Your task to perform on an android device: toggle priority inbox in the gmail app Image 0: 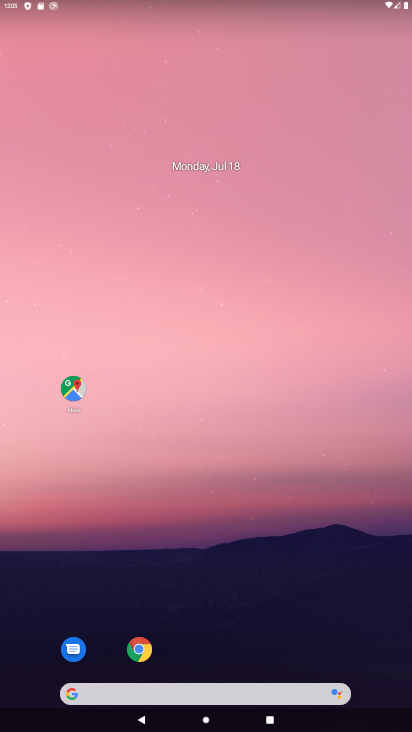
Step 0: drag from (196, 453) to (196, 169)
Your task to perform on an android device: toggle priority inbox in the gmail app Image 1: 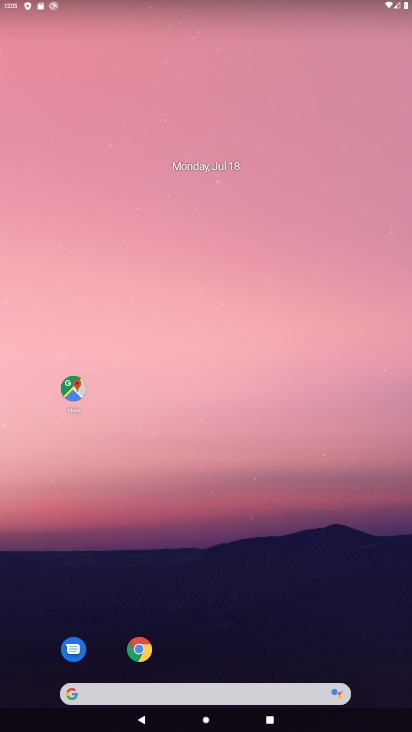
Step 1: drag from (191, 593) to (170, 26)
Your task to perform on an android device: toggle priority inbox in the gmail app Image 2: 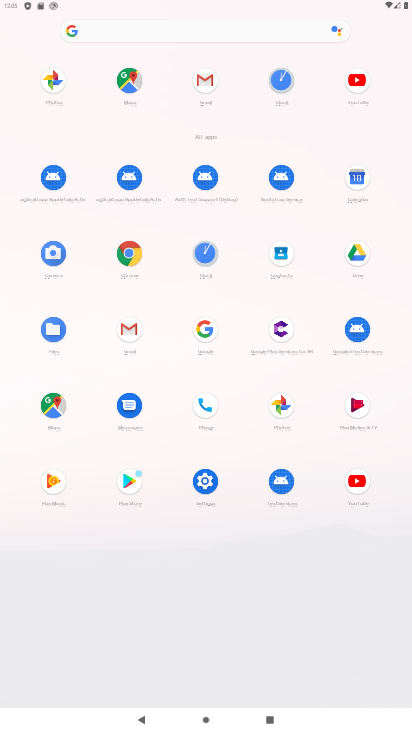
Step 2: click (204, 81)
Your task to perform on an android device: toggle priority inbox in the gmail app Image 3: 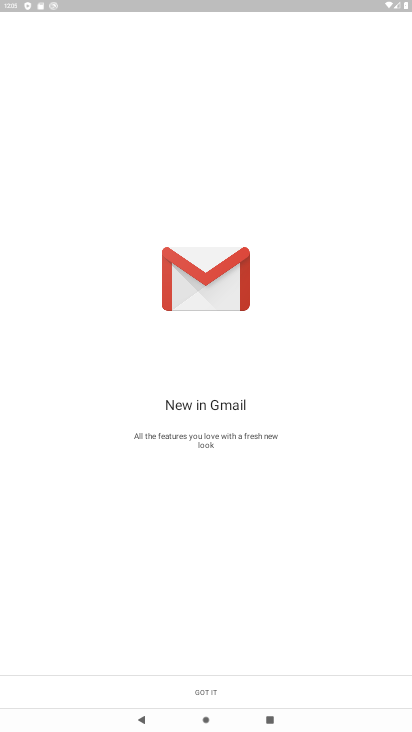
Step 3: click (204, 691)
Your task to perform on an android device: toggle priority inbox in the gmail app Image 4: 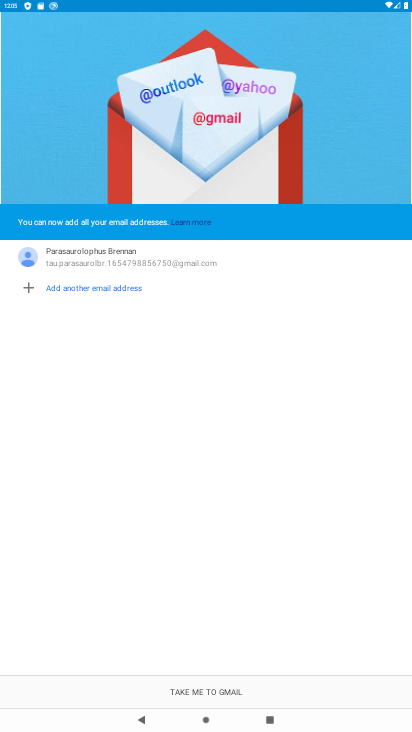
Step 4: click (204, 691)
Your task to perform on an android device: toggle priority inbox in the gmail app Image 5: 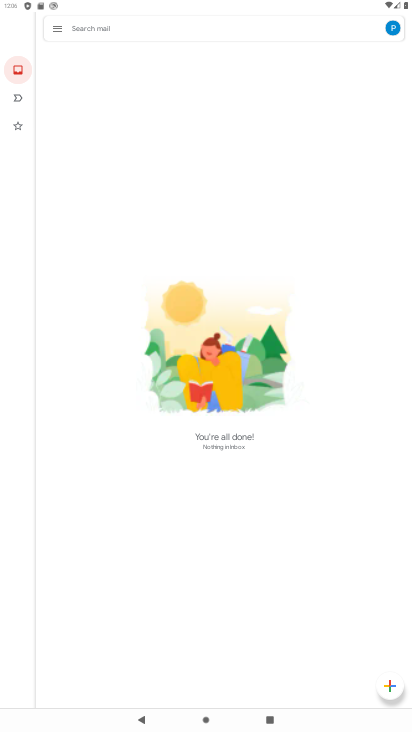
Step 5: click (53, 34)
Your task to perform on an android device: toggle priority inbox in the gmail app Image 6: 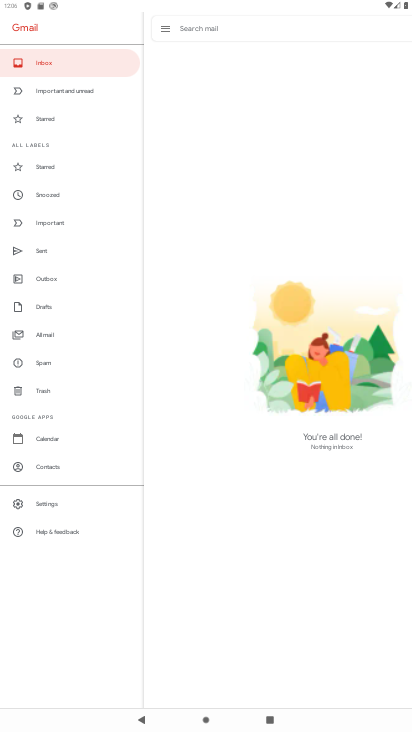
Step 6: click (47, 501)
Your task to perform on an android device: toggle priority inbox in the gmail app Image 7: 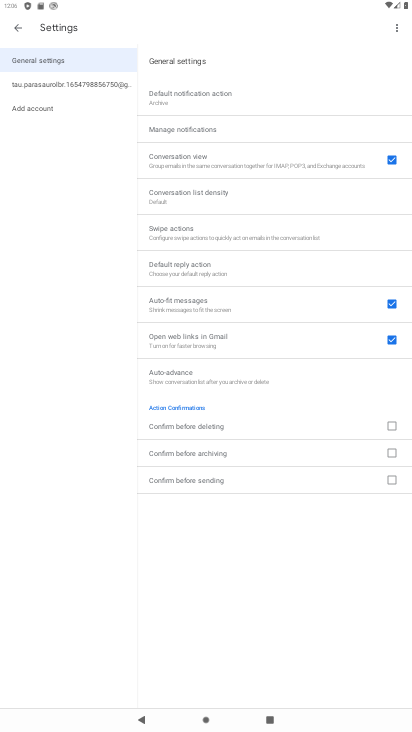
Step 7: click (66, 81)
Your task to perform on an android device: toggle priority inbox in the gmail app Image 8: 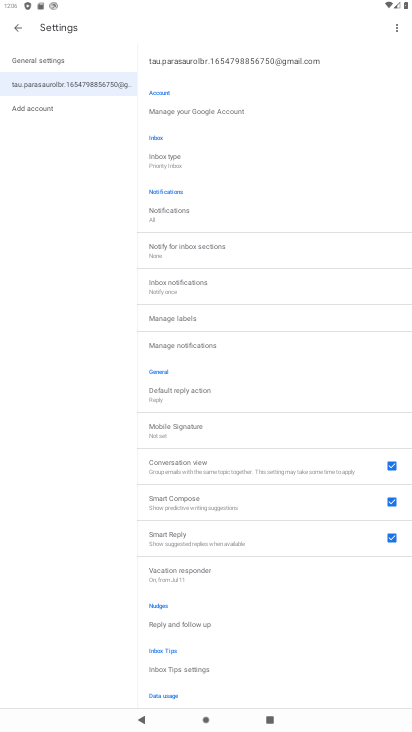
Step 8: click (168, 163)
Your task to perform on an android device: toggle priority inbox in the gmail app Image 9: 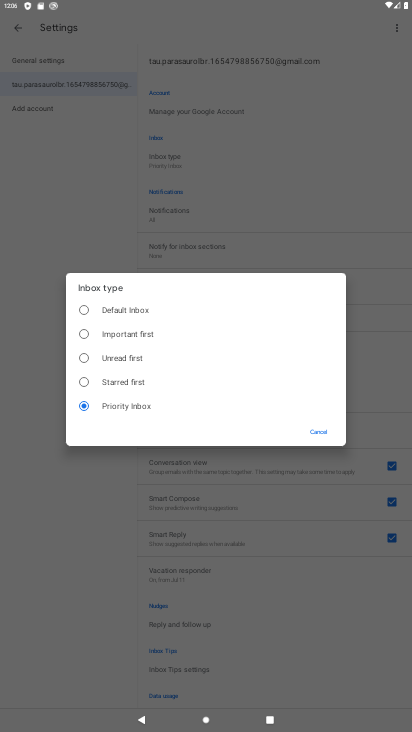
Step 9: click (81, 317)
Your task to perform on an android device: toggle priority inbox in the gmail app Image 10: 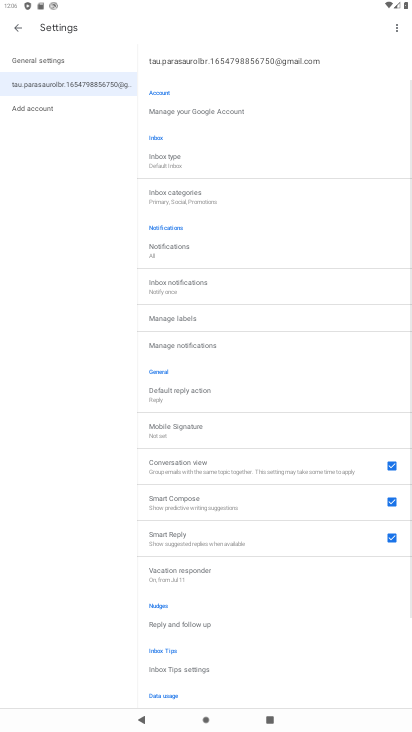
Step 10: task complete